Your task to perform on an android device: Do I have any events this weekend? Image 0: 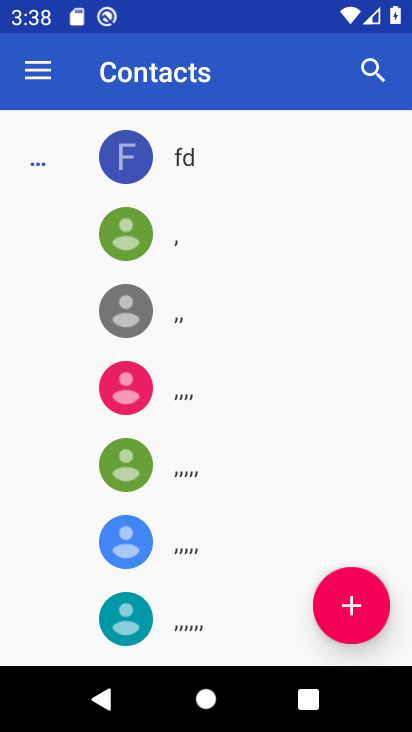
Step 0: press home button
Your task to perform on an android device: Do I have any events this weekend? Image 1: 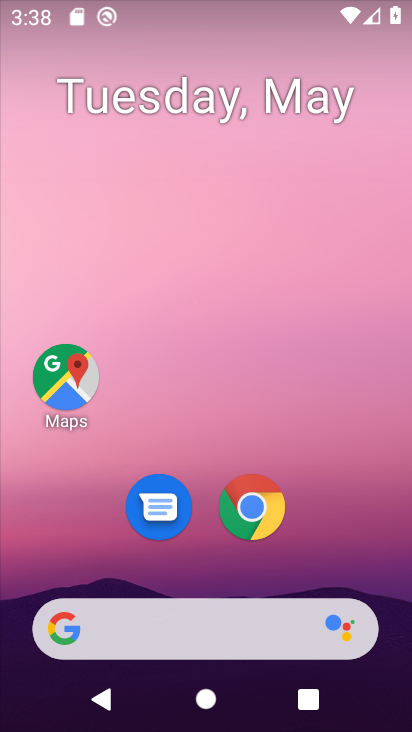
Step 1: drag from (337, 554) to (325, 142)
Your task to perform on an android device: Do I have any events this weekend? Image 2: 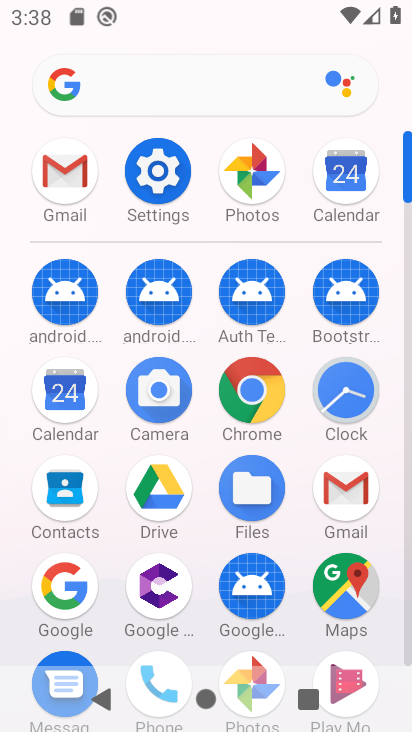
Step 2: click (68, 394)
Your task to perform on an android device: Do I have any events this weekend? Image 3: 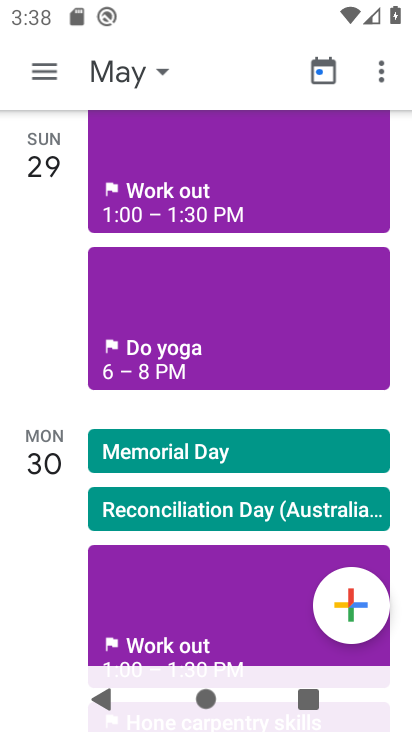
Step 3: click (145, 73)
Your task to perform on an android device: Do I have any events this weekend? Image 4: 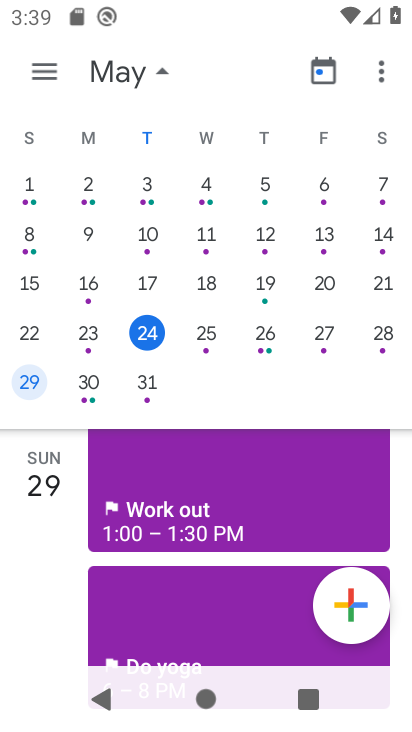
Step 4: click (378, 346)
Your task to perform on an android device: Do I have any events this weekend? Image 5: 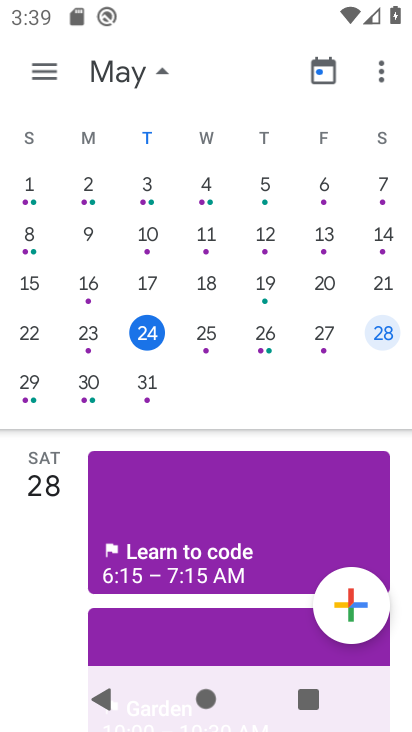
Step 5: task complete